Your task to perform on an android device: change the clock display to analog Image 0: 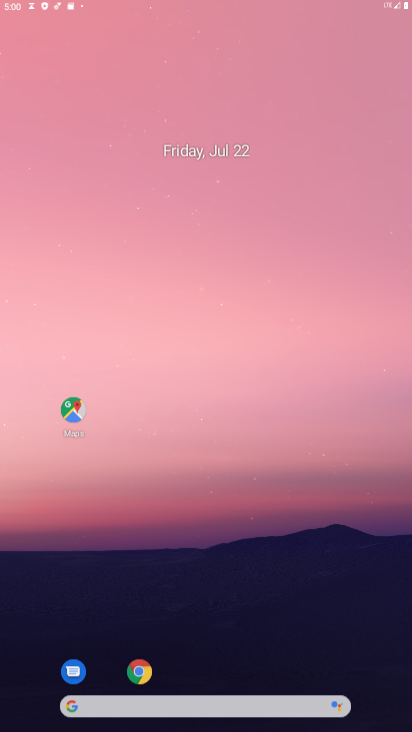
Step 0: press home button
Your task to perform on an android device: change the clock display to analog Image 1: 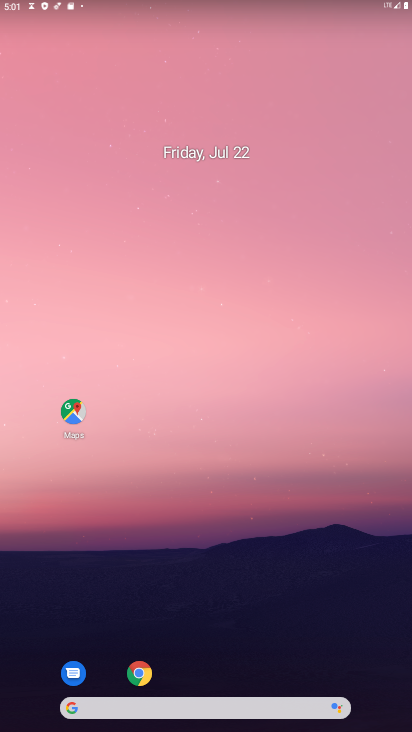
Step 1: drag from (282, 642) to (321, 246)
Your task to perform on an android device: change the clock display to analog Image 2: 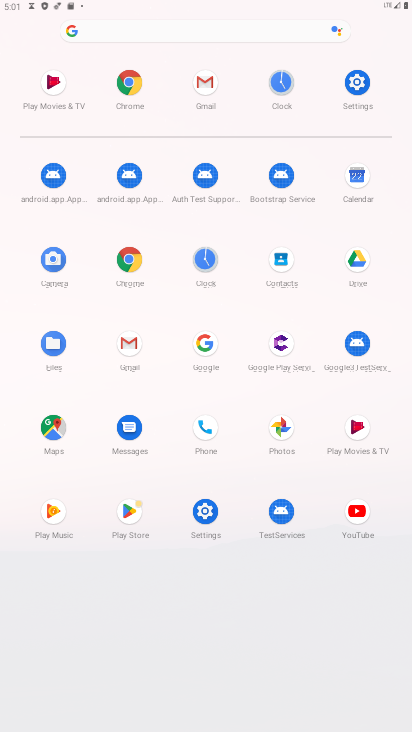
Step 2: click (204, 266)
Your task to perform on an android device: change the clock display to analog Image 3: 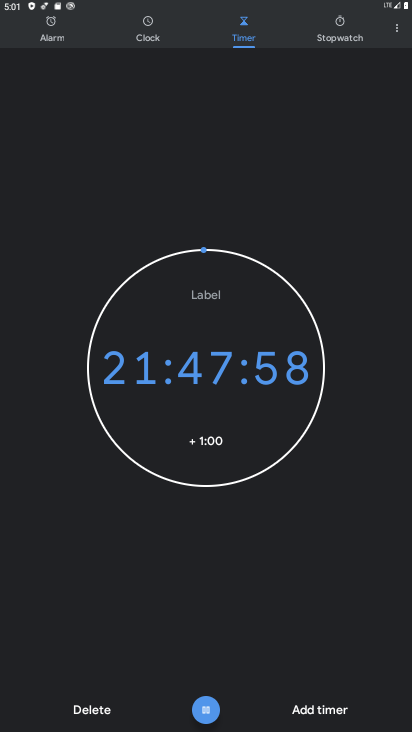
Step 3: click (400, 35)
Your task to perform on an android device: change the clock display to analog Image 4: 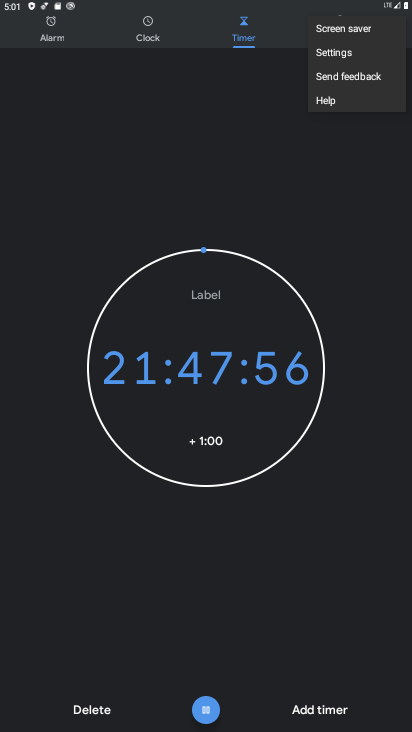
Step 4: click (365, 60)
Your task to perform on an android device: change the clock display to analog Image 5: 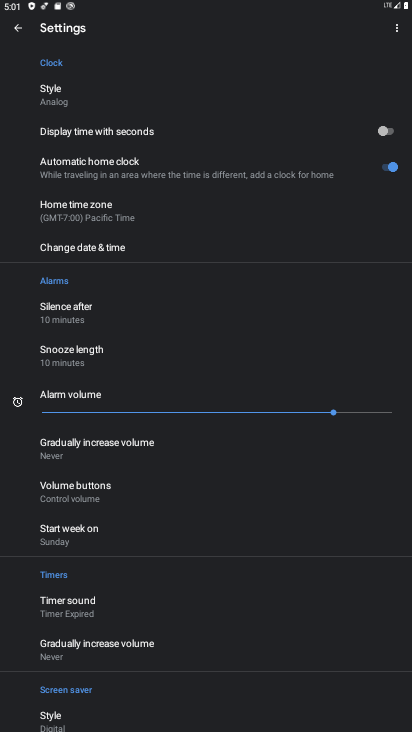
Step 5: click (53, 97)
Your task to perform on an android device: change the clock display to analog Image 6: 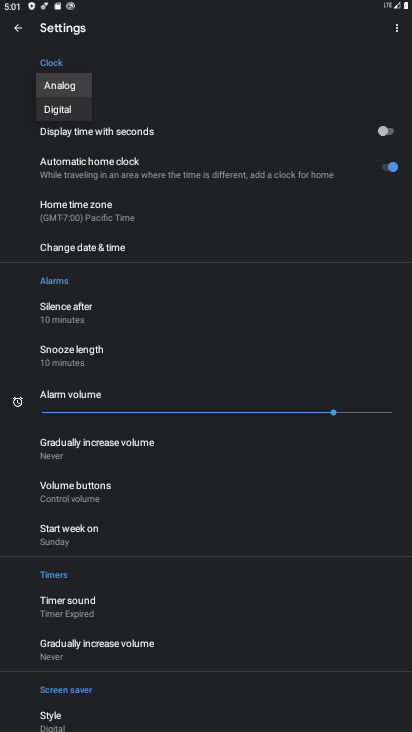
Step 6: task complete